Your task to perform on an android device: Go to Yahoo.com Image 0: 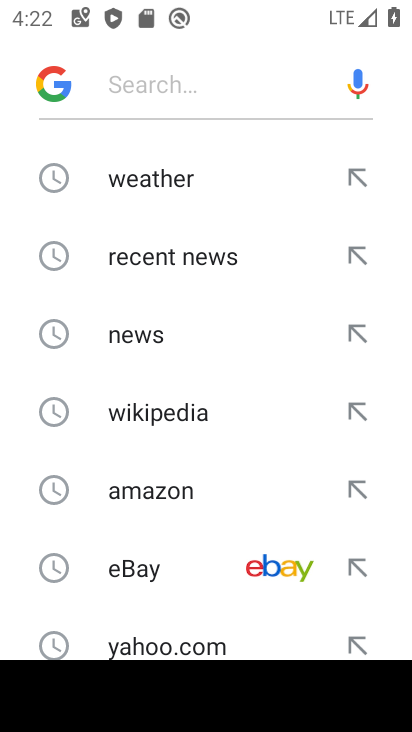
Step 0: press home button
Your task to perform on an android device: Go to Yahoo.com Image 1: 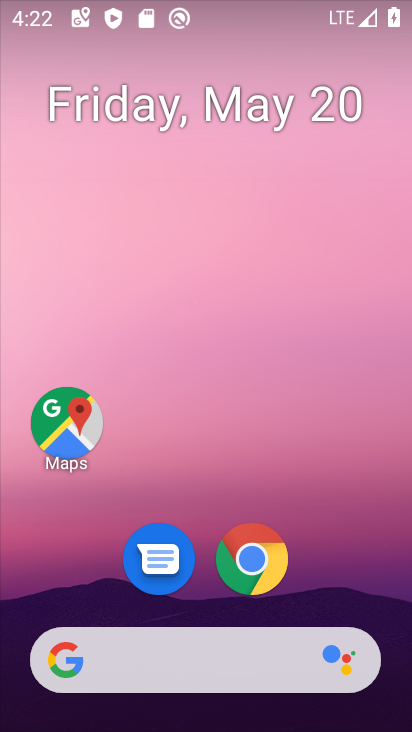
Step 1: click (265, 551)
Your task to perform on an android device: Go to Yahoo.com Image 2: 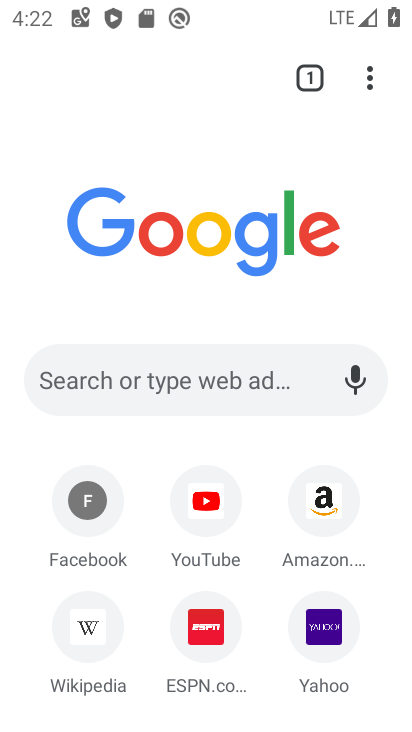
Step 2: click (320, 628)
Your task to perform on an android device: Go to Yahoo.com Image 3: 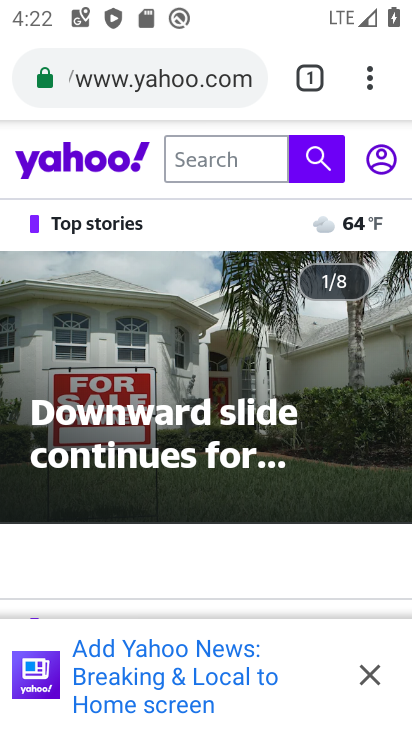
Step 3: task complete